Your task to perform on an android device: Open Android settings Image 0: 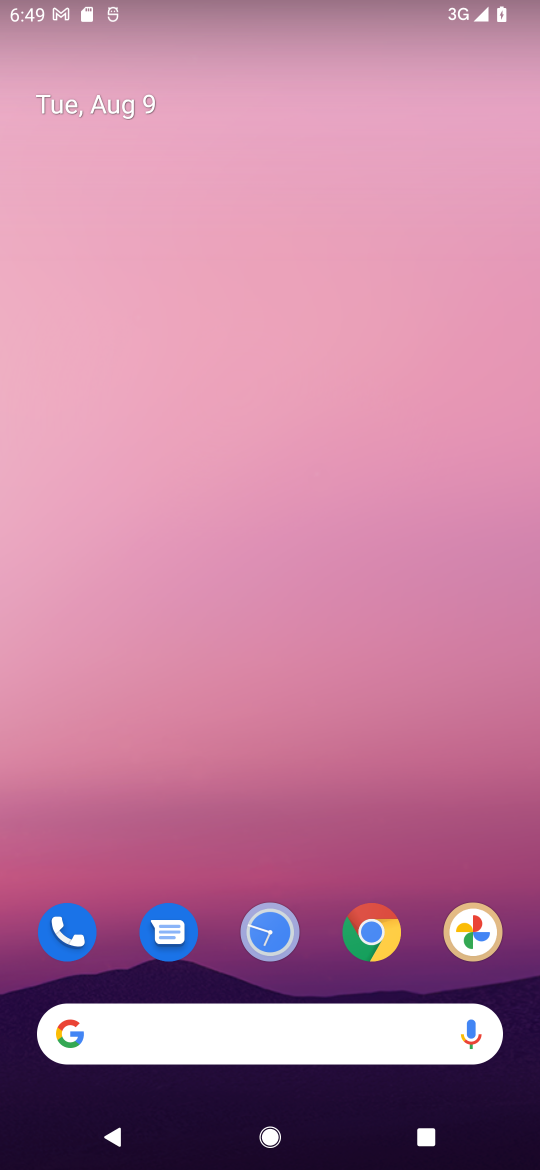
Step 0: drag from (256, 1009) to (296, 290)
Your task to perform on an android device: Open Android settings Image 1: 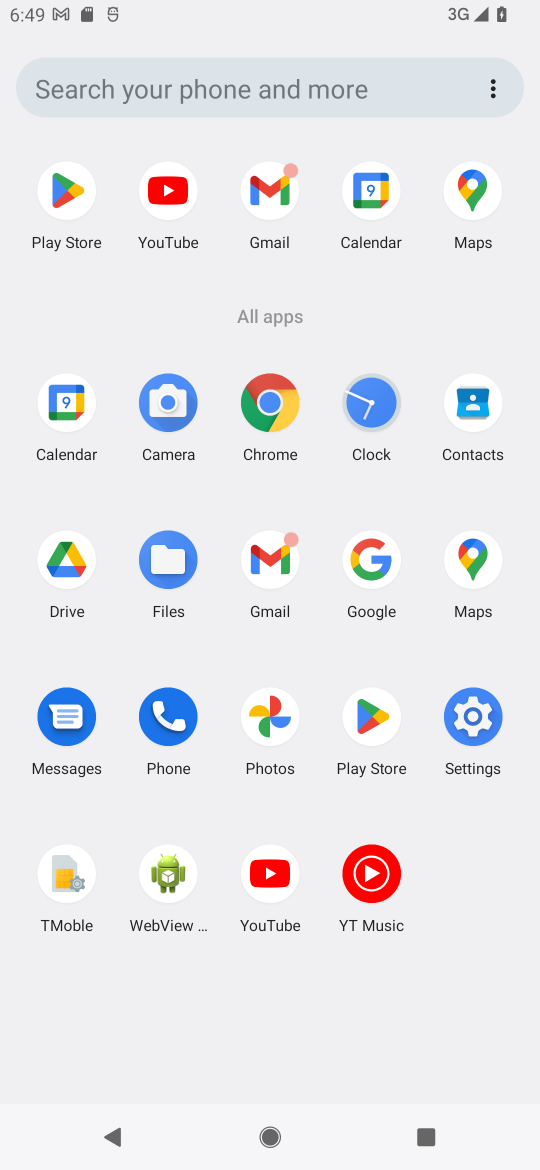
Step 1: click (452, 722)
Your task to perform on an android device: Open Android settings Image 2: 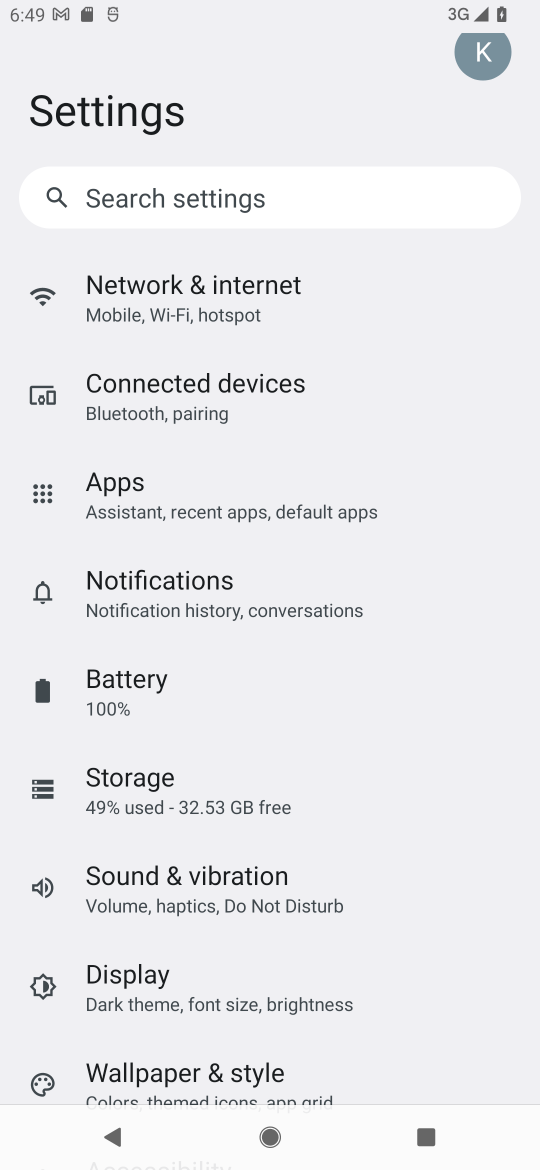
Step 2: drag from (307, 929) to (333, 408)
Your task to perform on an android device: Open Android settings Image 3: 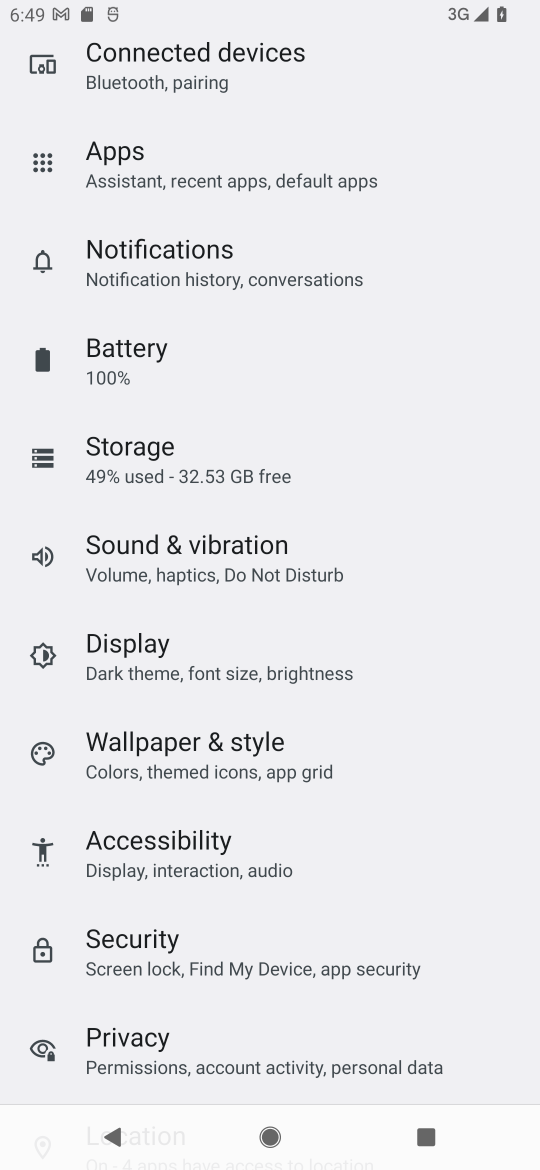
Step 3: drag from (283, 882) to (296, 418)
Your task to perform on an android device: Open Android settings Image 4: 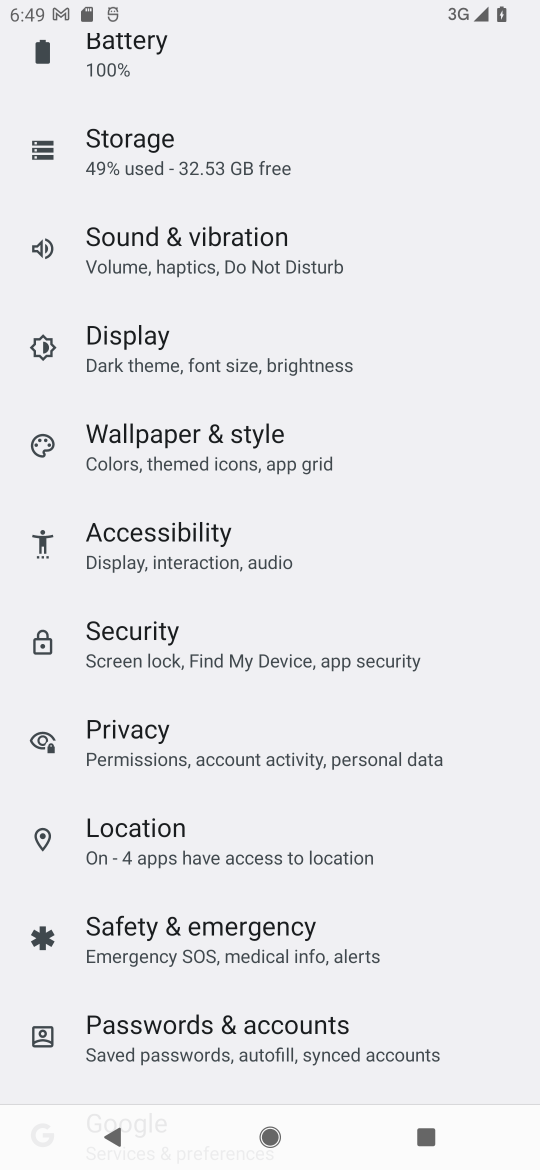
Step 4: drag from (272, 762) to (290, 323)
Your task to perform on an android device: Open Android settings Image 5: 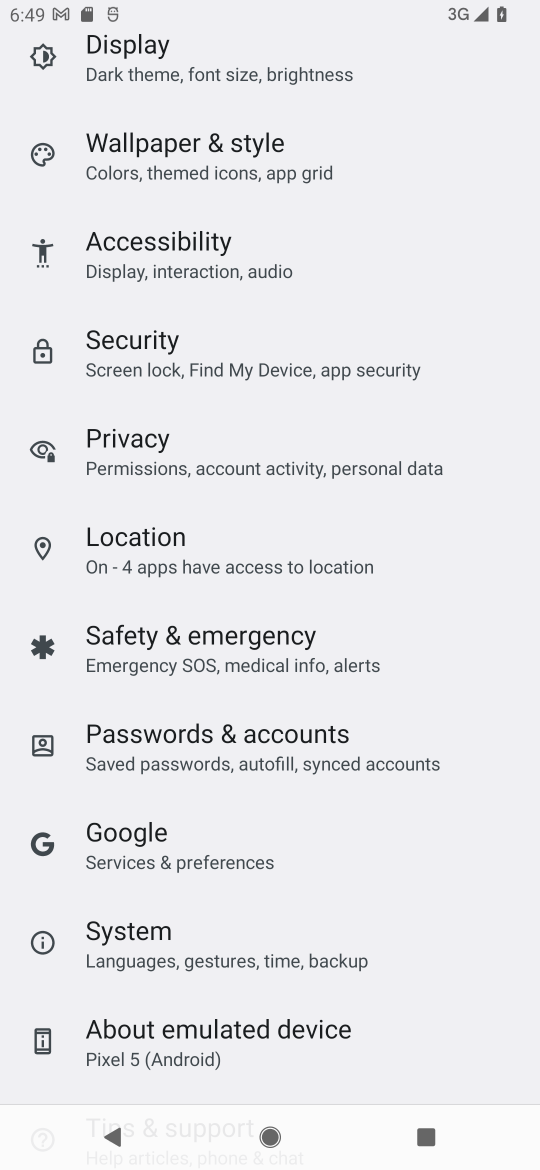
Step 5: click (207, 1047)
Your task to perform on an android device: Open Android settings Image 6: 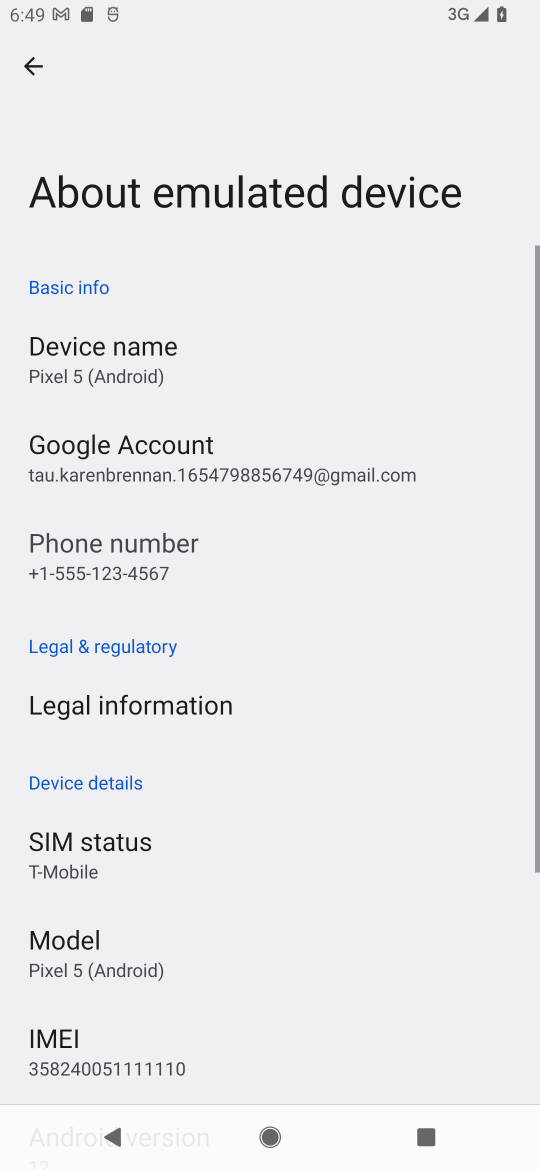
Step 6: click (207, 1047)
Your task to perform on an android device: Open Android settings Image 7: 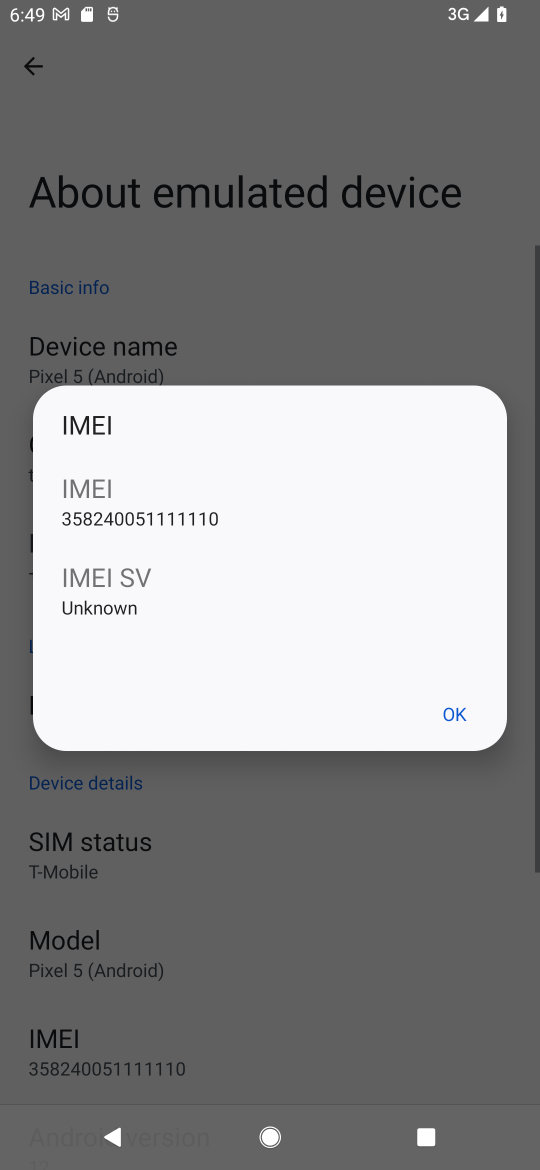
Step 7: click (461, 711)
Your task to perform on an android device: Open Android settings Image 8: 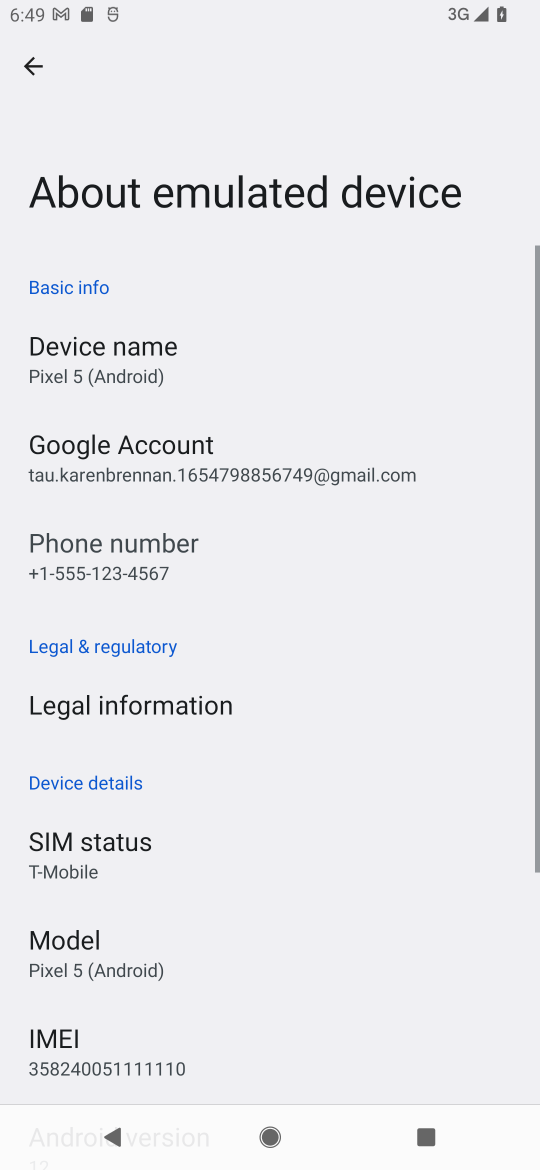
Step 8: drag from (295, 1004) to (304, 735)
Your task to perform on an android device: Open Android settings Image 9: 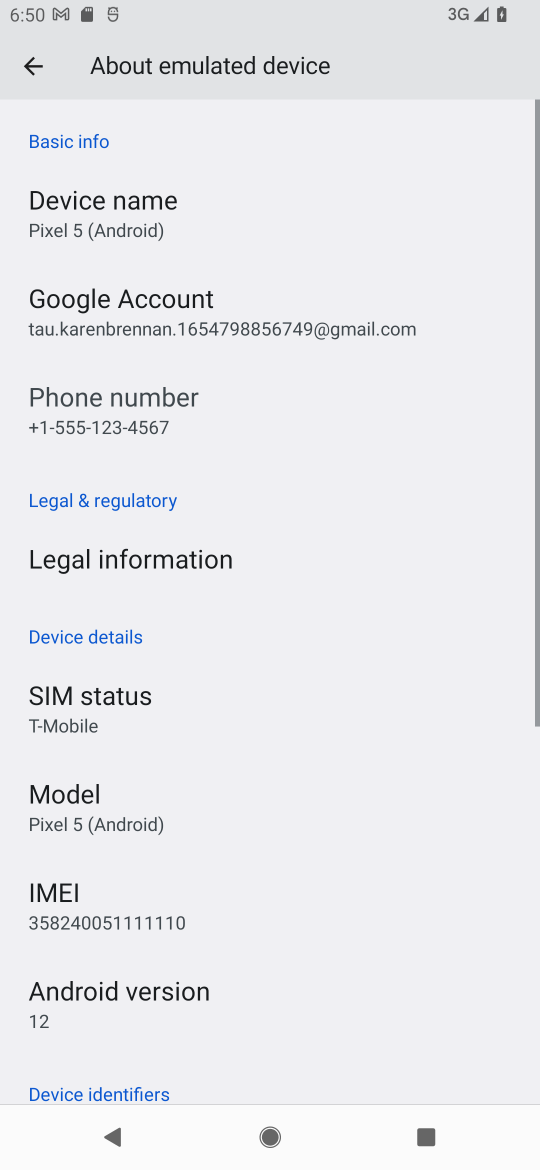
Step 9: drag from (295, 961) to (334, 296)
Your task to perform on an android device: Open Android settings Image 10: 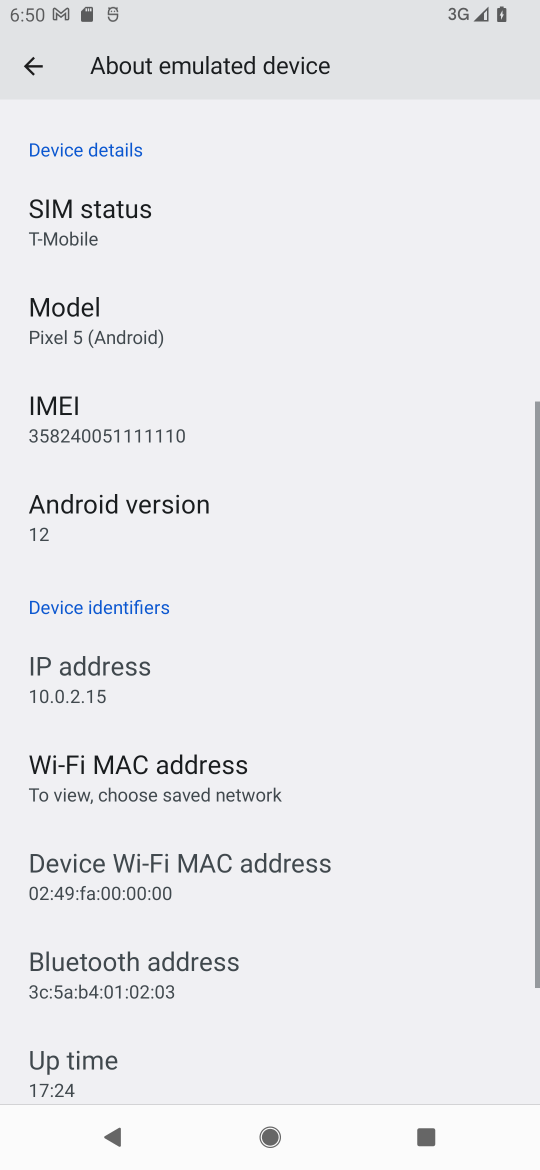
Step 10: click (303, 516)
Your task to perform on an android device: Open Android settings Image 11: 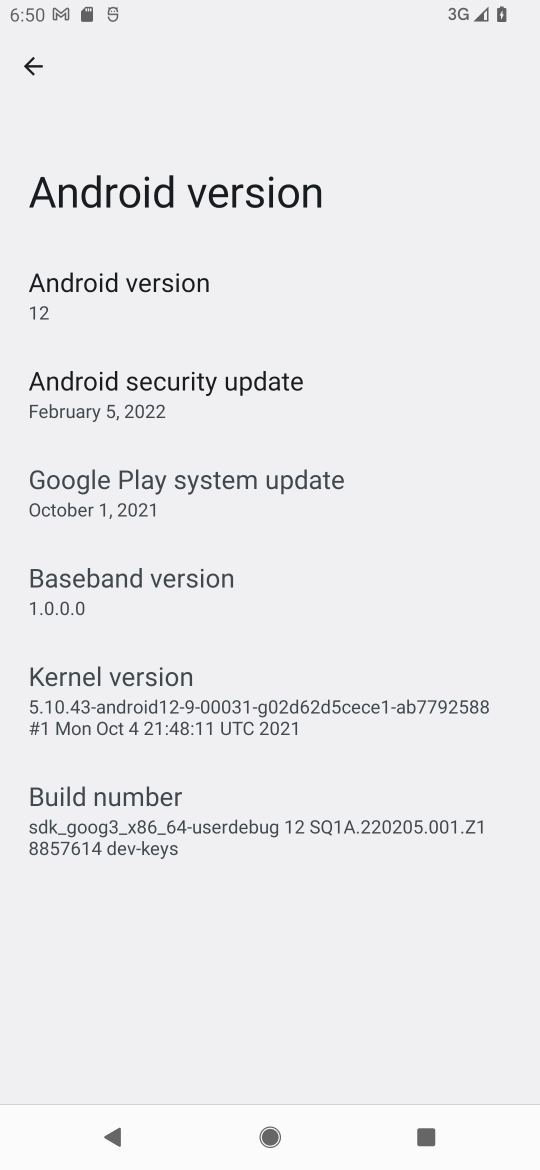
Step 11: click (190, 303)
Your task to perform on an android device: Open Android settings Image 12: 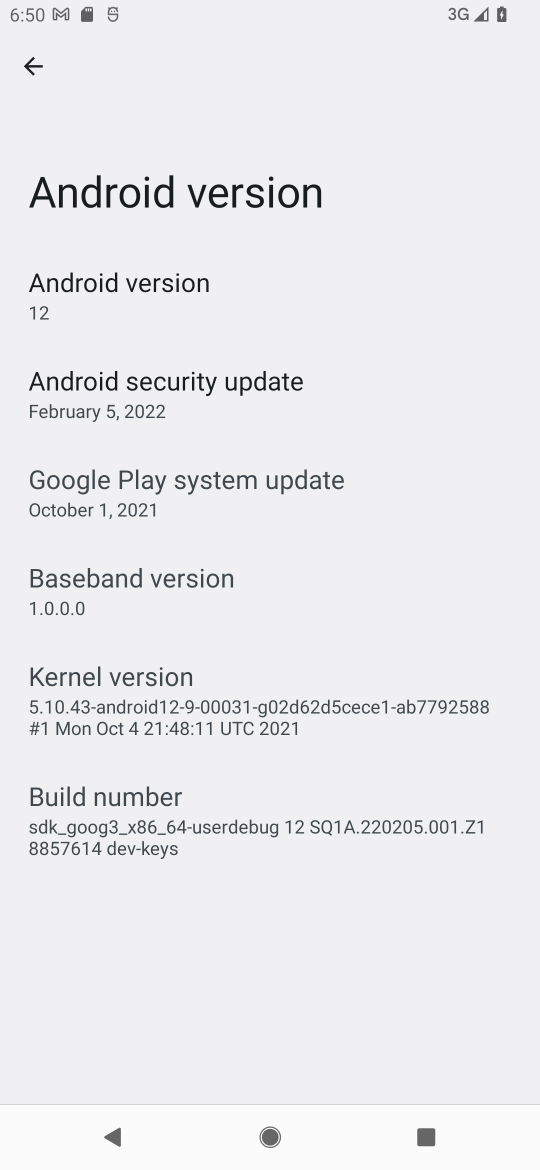
Step 12: task complete